Your task to perform on an android device: Go to settings Image 0: 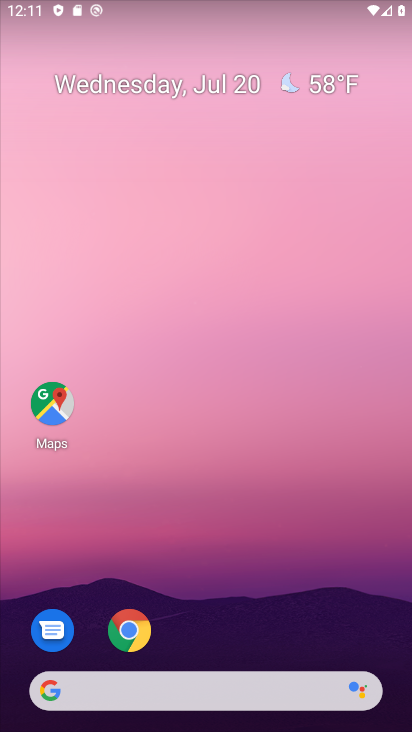
Step 0: press home button
Your task to perform on an android device: Go to settings Image 1: 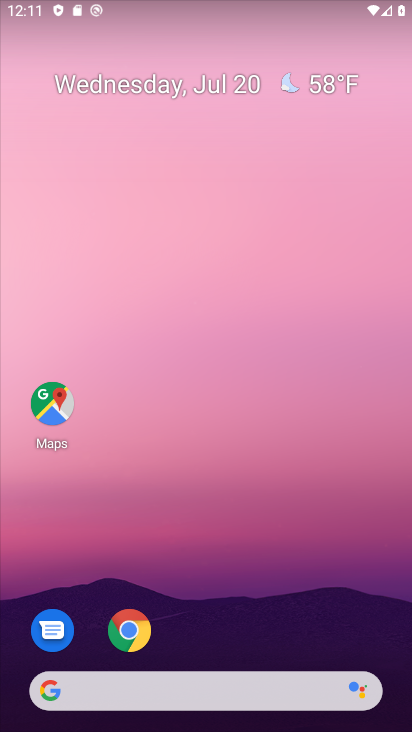
Step 1: drag from (181, 693) to (306, 99)
Your task to perform on an android device: Go to settings Image 2: 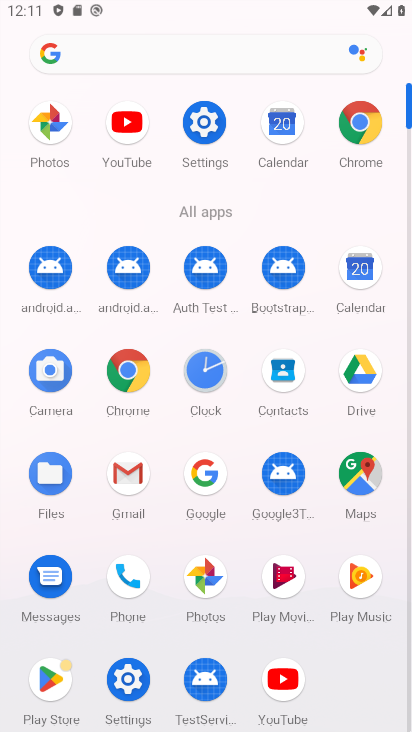
Step 2: click (206, 125)
Your task to perform on an android device: Go to settings Image 3: 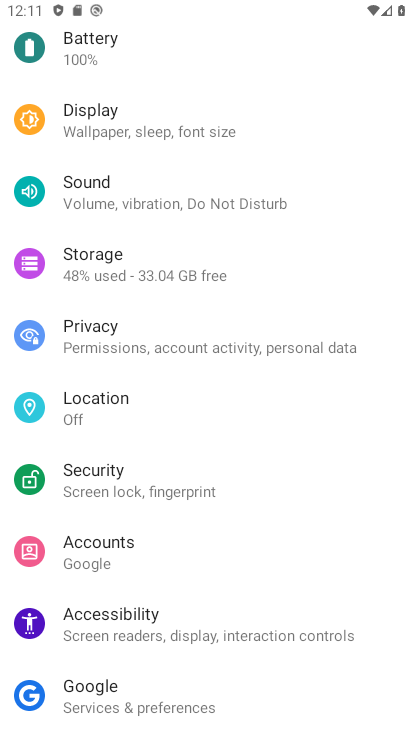
Step 3: task complete